Your task to perform on an android device: see creations saved in the google photos Image 0: 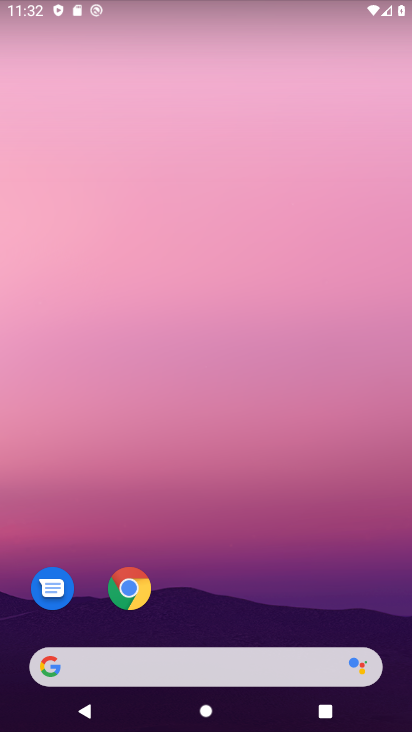
Step 0: drag from (279, 630) to (199, 102)
Your task to perform on an android device: see creations saved in the google photos Image 1: 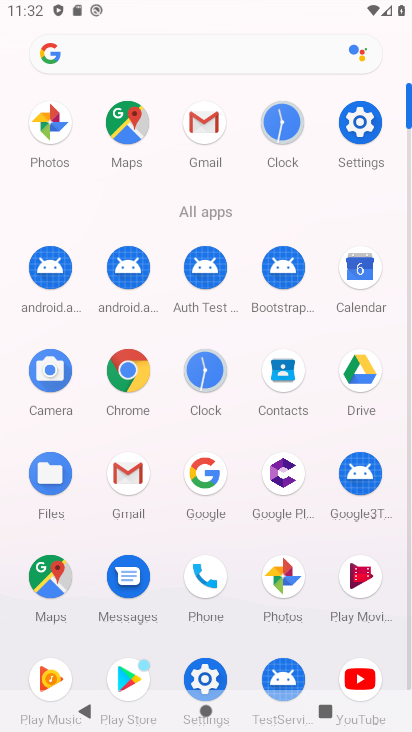
Step 1: click (275, 581)
Your task to perform on an android device: see creations saved in the google photos Image 2: 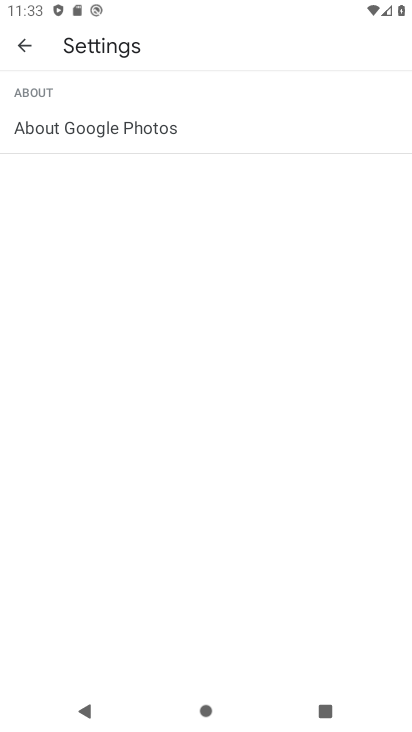
Step 2: press home button
Your task to perform on an android device: see creations saved in the google photos Image 3: 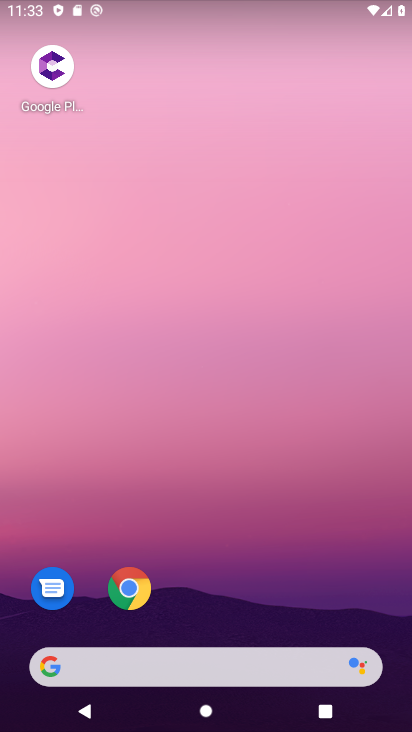
Step 3: drag from (222, 638) to (297, 80)
Your task to perform on an android device: see creations saved in the google photos Image 4: 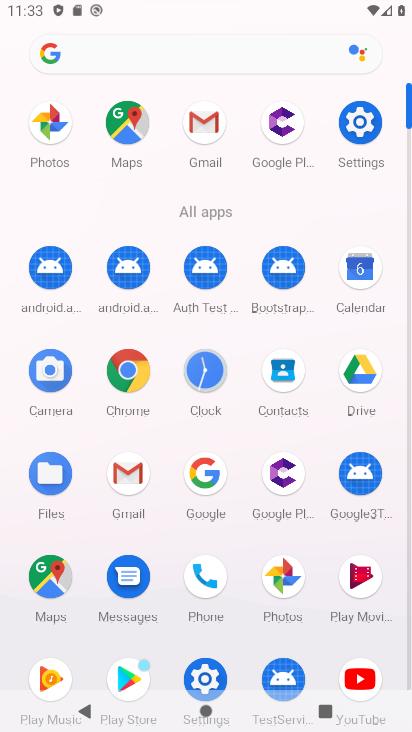
Step 4: click (280, 588)
Your task to perform on an android device: see creations saved in the google photos Image 5: 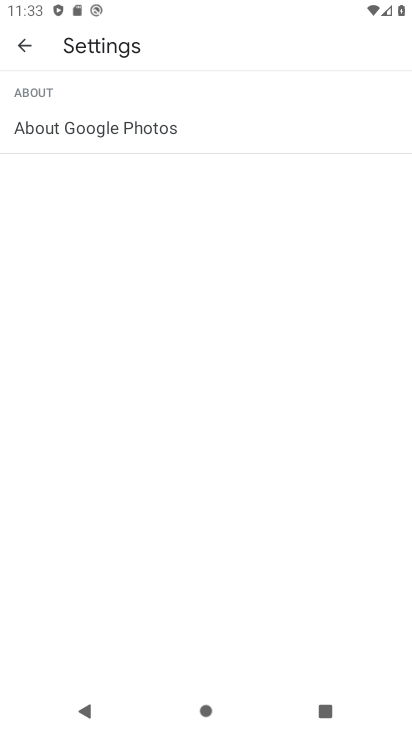
Step 5: click (19, 56)
Your task to perform on an android device: see creations saved in the google photos Image 6: 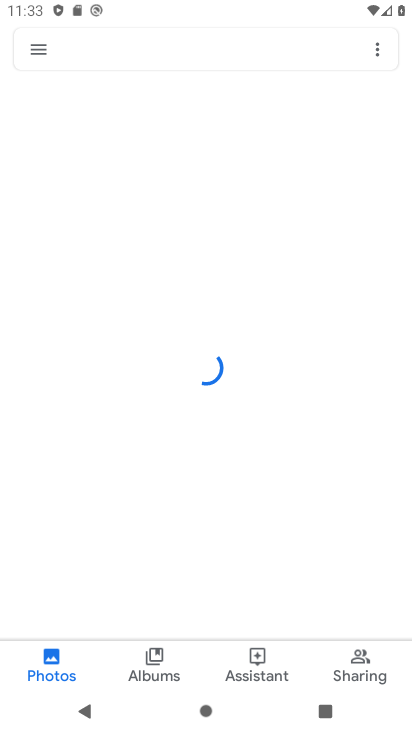
Step 6: click (218, 52)
Your task to perform on an android device: see creations saved in the google photos Image 7: 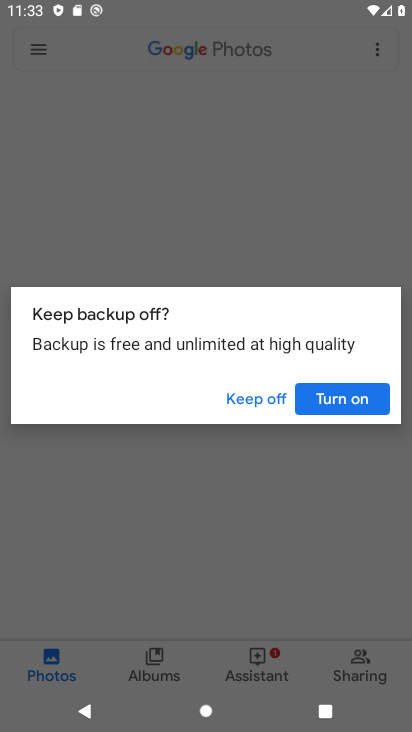
Step 7: click (274, 405)
Your task to perform on an android device: see creations saved in the google photos Image 8: 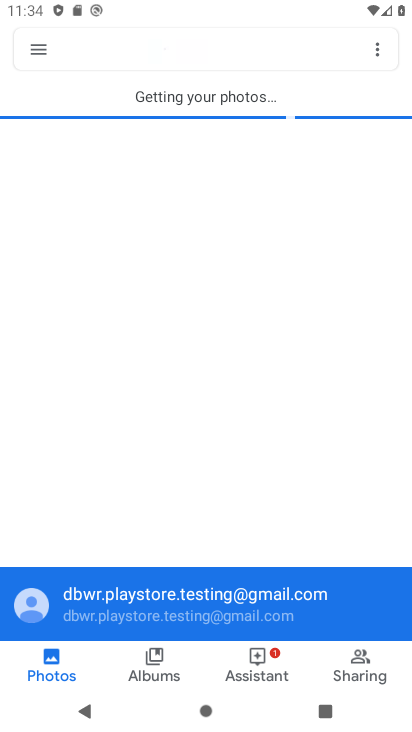
Step 8: click (214, 53)
Your task to perform on an android device: see creations saved in the google photos Image 9: 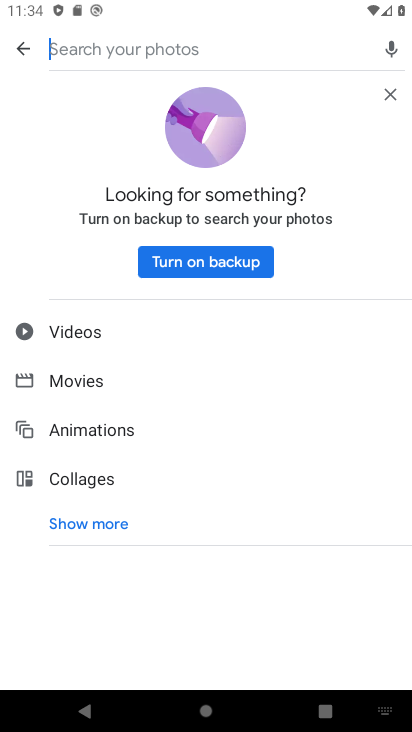
Step 9: click (81, 530)
Your task to perform on an android device: see creations saved in the google photos Image 10: 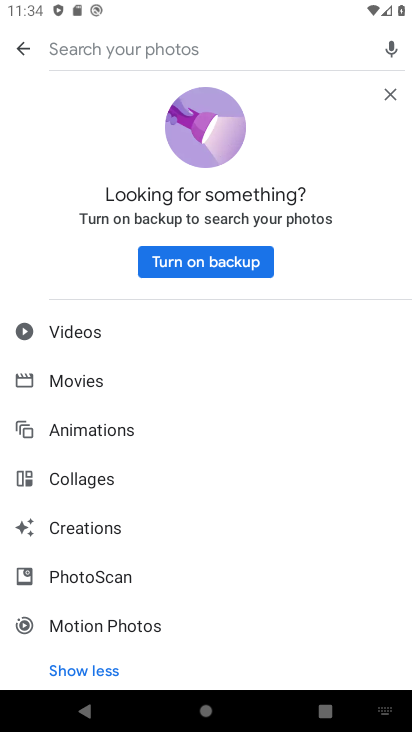
Step 10: click (81, 530)
Your task to perform on an android device: see creations saved in the google photos Image 11: 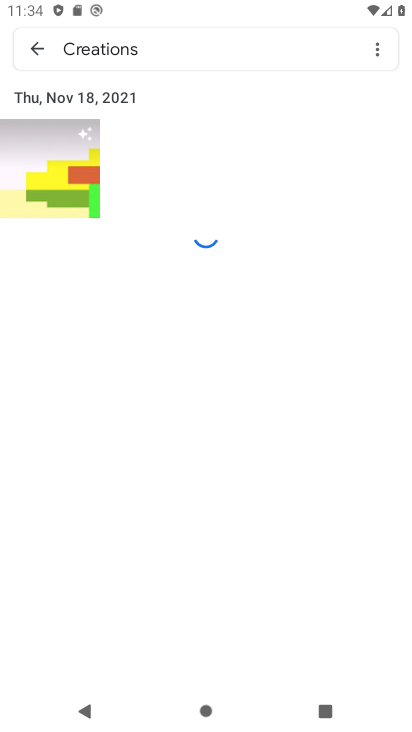
Step 11: task complete